Your task to perform on an android device: snooze an email in the gmail app Image 0: 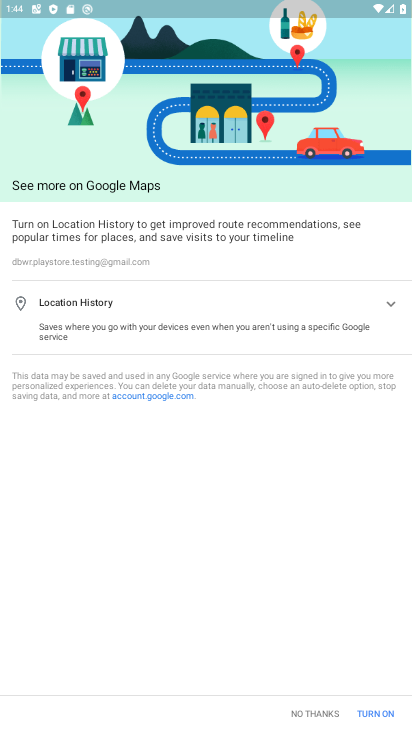
Step 0: press home button
Your task to perform on an android device: snooze an email in the gmail app Image 1: 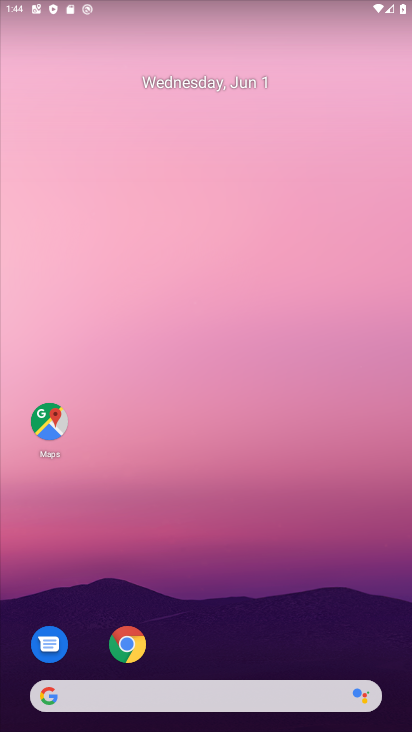
Step 1: drag from (119, 571) to (174, 99)
Your task to perform on an android device: snooze an email in the gmail app Image 2: 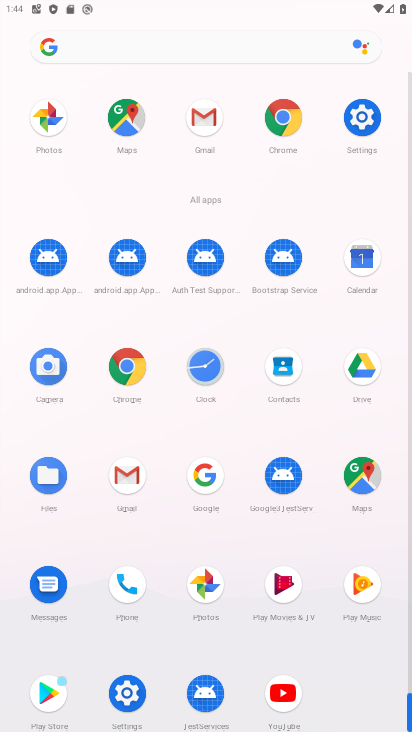
Step 2: click (126, 490)
Your task to perform on an android device: snooze an email in the gmail app Image 3: 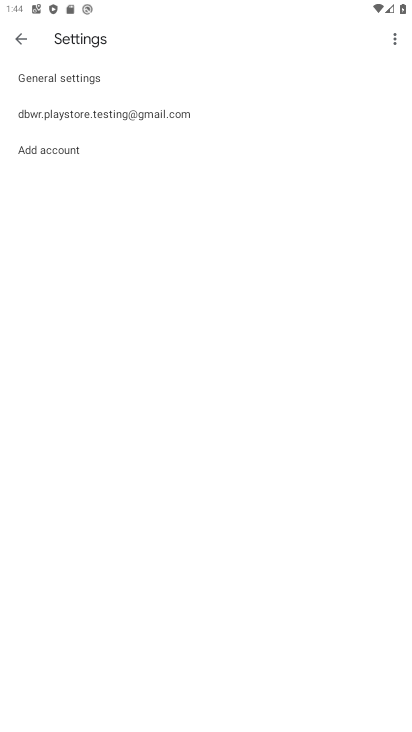
Step 3: click (93, 108)
Your task to perform on an android device: snooze an email in the gmail app Image 4: 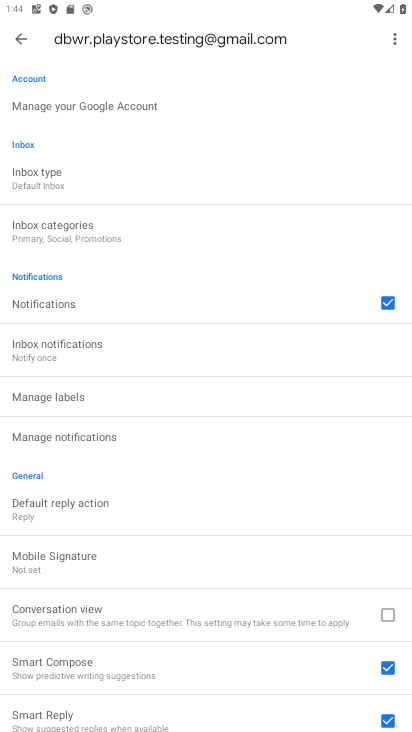
Step 4: click (19, 42)
Your task to perform on an android device: snooze an email in the gmail app Image 5: 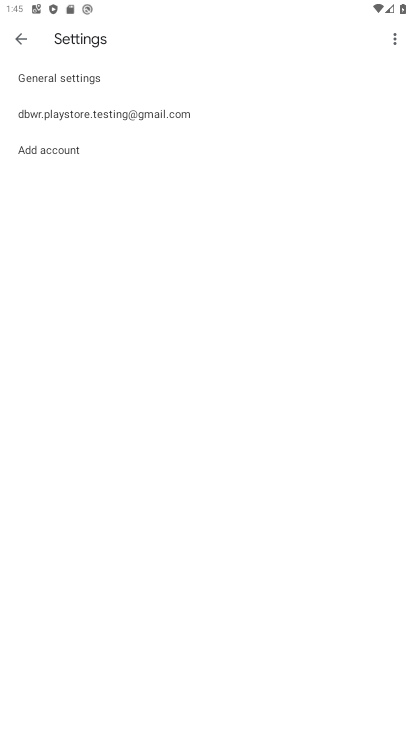
Step 5: click (18, 44)
Your task to perform on an android device: snooze an email in the gmail app Image 6: 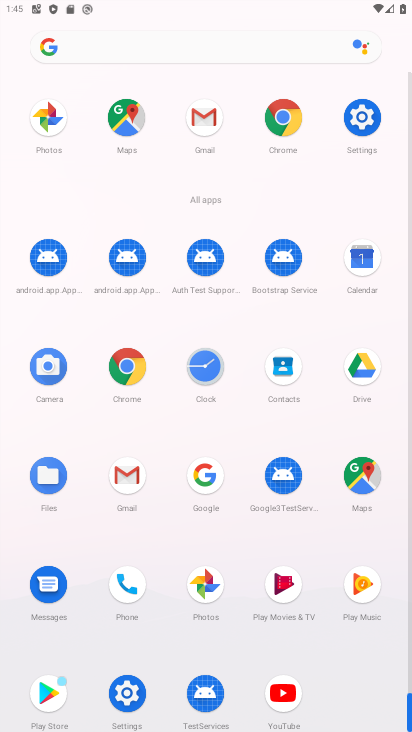
Step 6: click (191, 125)
Your task to perform on an android device: snooze an email in the gmail app Image 7: 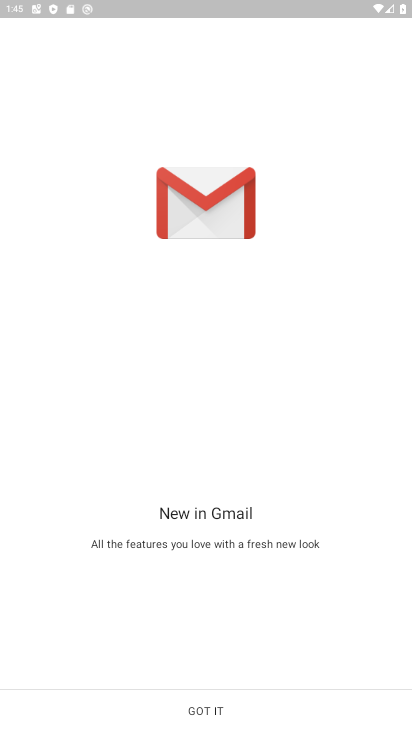
Step 7: click (178, 708)
Your task to perform on an android device: snooze an email in the gmail app Image 8: 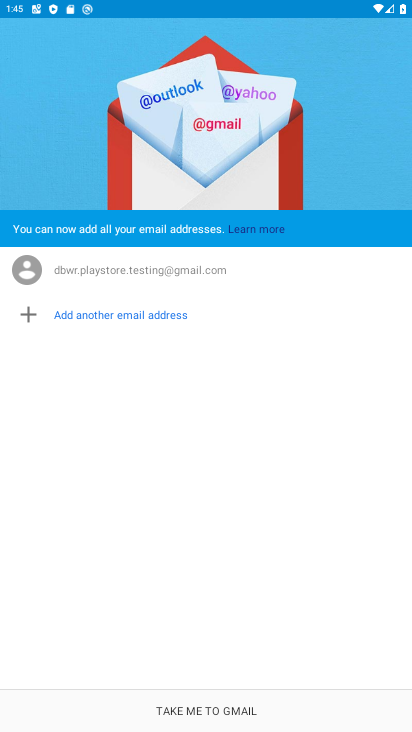
Step 8: click (205, 699)
Your task to perform on an android device: snooze an email in the gmail app Image 9: 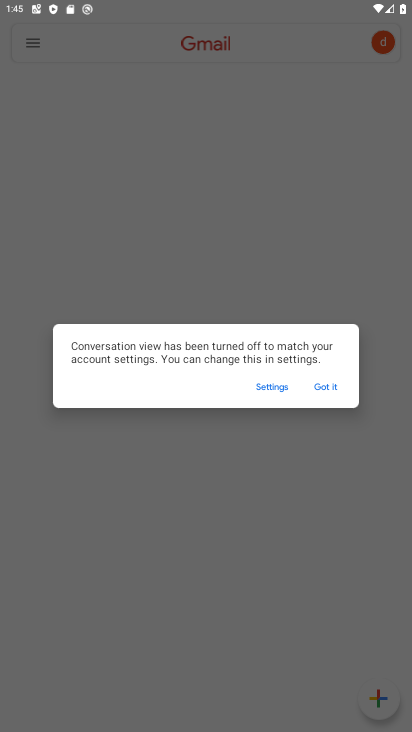
Step 9: click (324, 375)
Your task to perform on an android device: snooze an email in the gmail app Image 10: 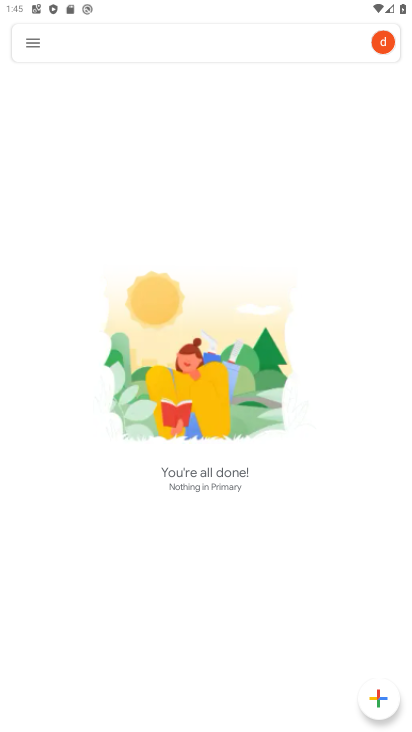
Step 10: click (29, 41)
Your task to perform on an android device: snooze an email in the gmail app Image 11: 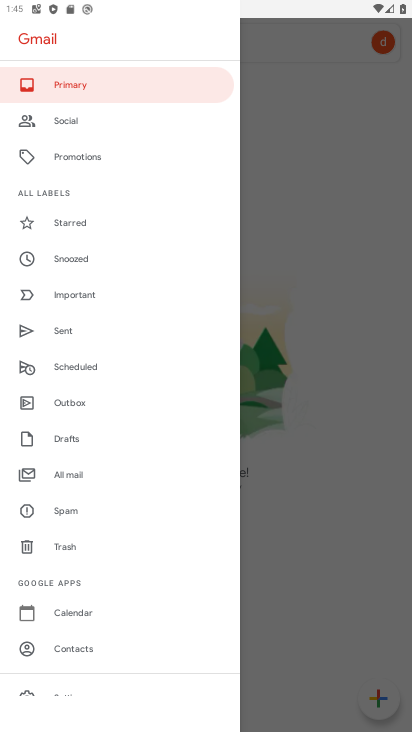
Step 11: click (62, 477)
Your task to perform on an android device: snooze an email in the gmail app Image 12: 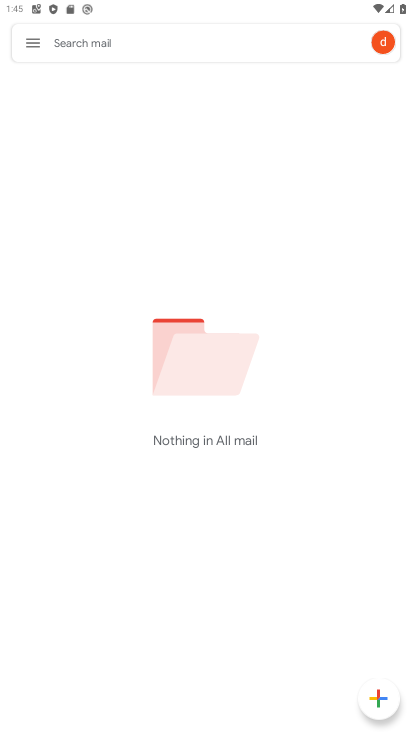
Step 12: task complete